Your task to perform on an android device: Play the last video I watched on Youtube Image 0: 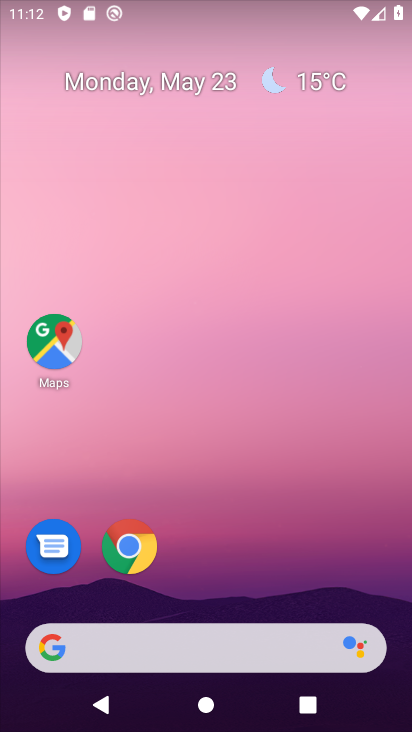
Step 0: drag from (212, 609) to (185, 282)
Your task to perform on an android device: Play the last video I watched on Youtube Image 1: 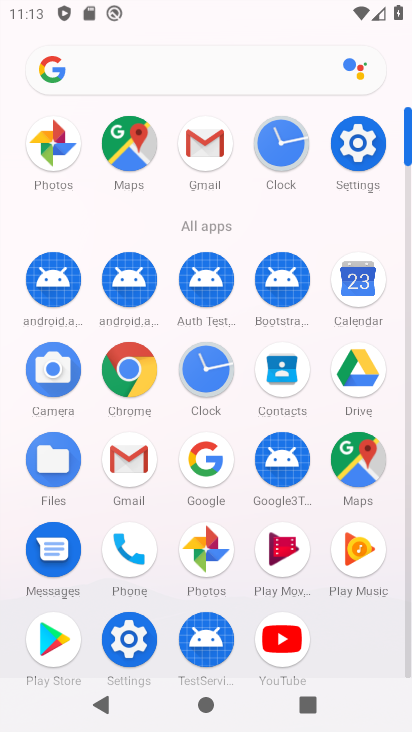
Step 1: click (270, 636)
Your task to perform on an android device: Play the last video I watched on Youtube Image 2: 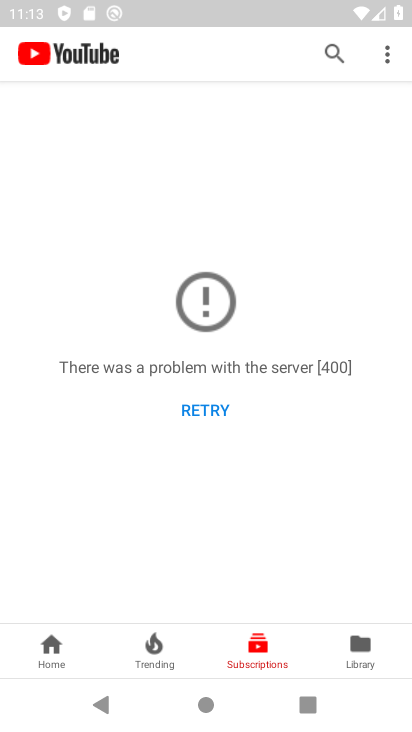
Step 2: click (335, 648)
Your task to perform on an android device: Play the last video I watched on Youtube Image 3: 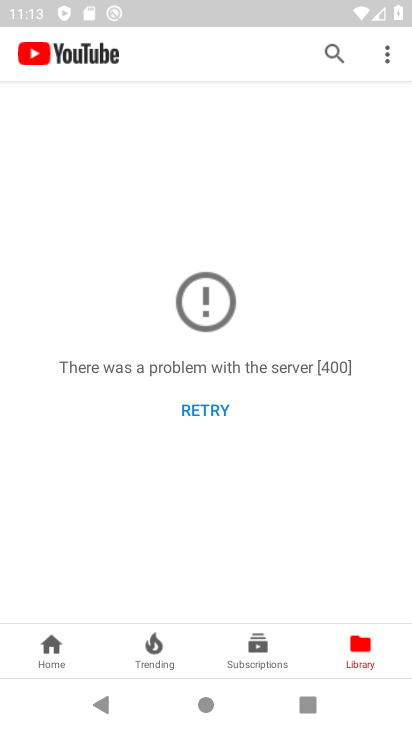
Step 3: click (341, 654)
Your task to perform on an android device: Play the last video I watched on Youtube Image 4: 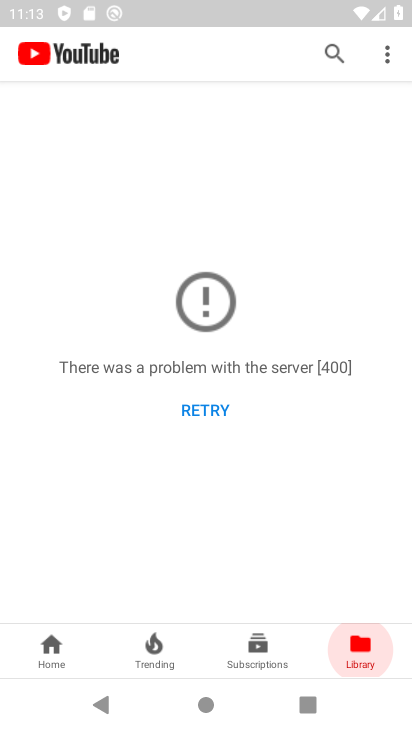
Step 4: click (342, 644)
Your task to perform on an android device: Play the last video I watched on Youtube Image 5: 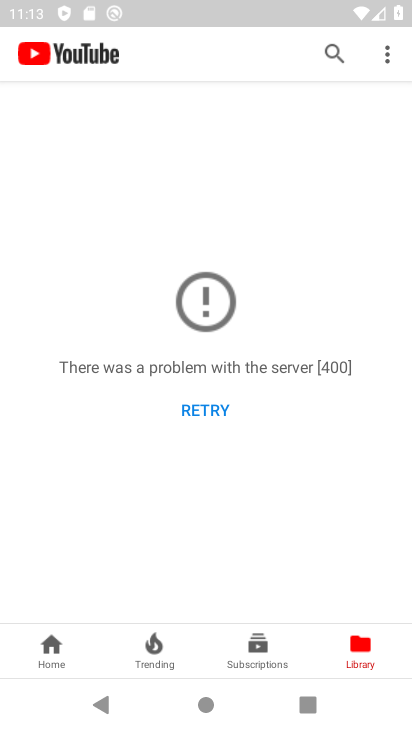
Step 5: task complete